Your task to perform on an android device: turn off notifications settings in the gmail app Image 0: 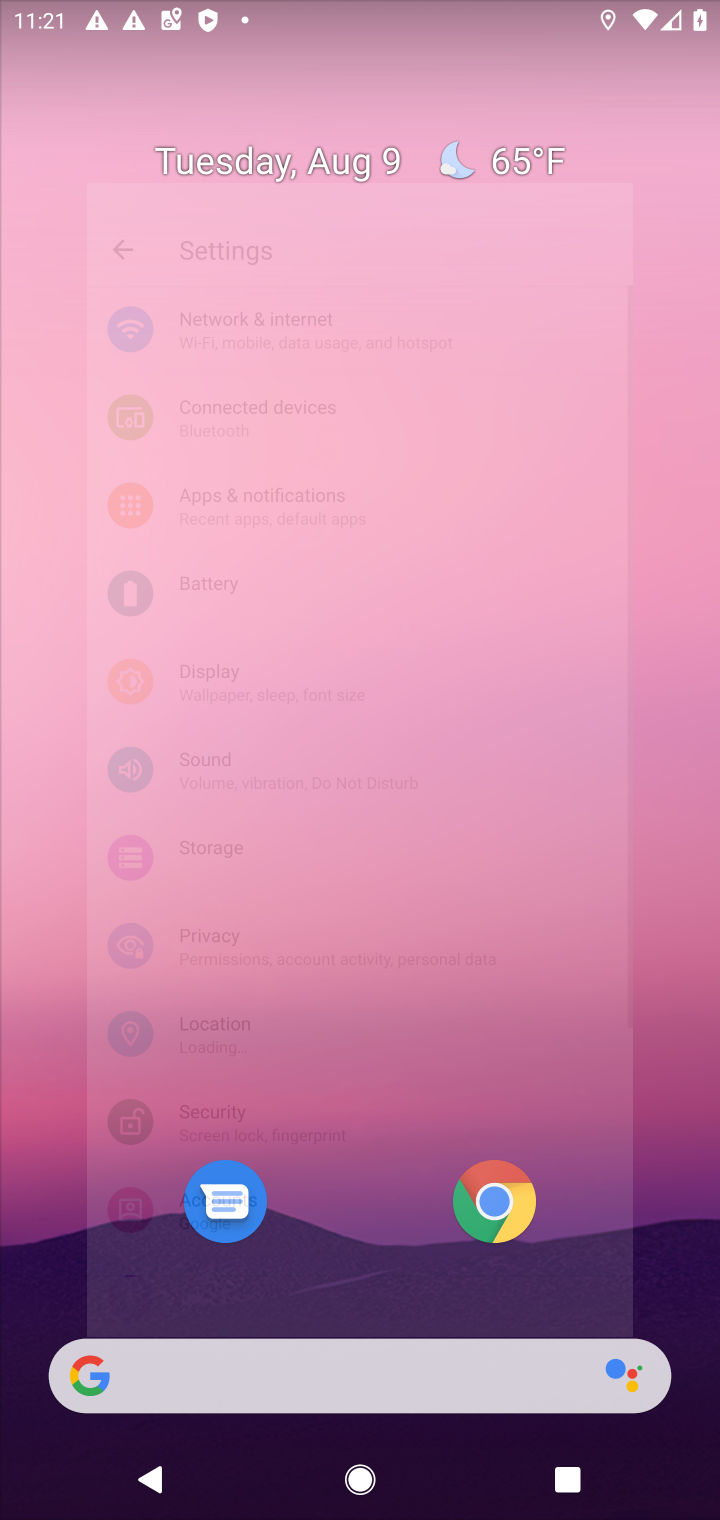
Step 0: press home button
Your task to perform on an android device: turn off notifications settings in the gmail app Image 1: 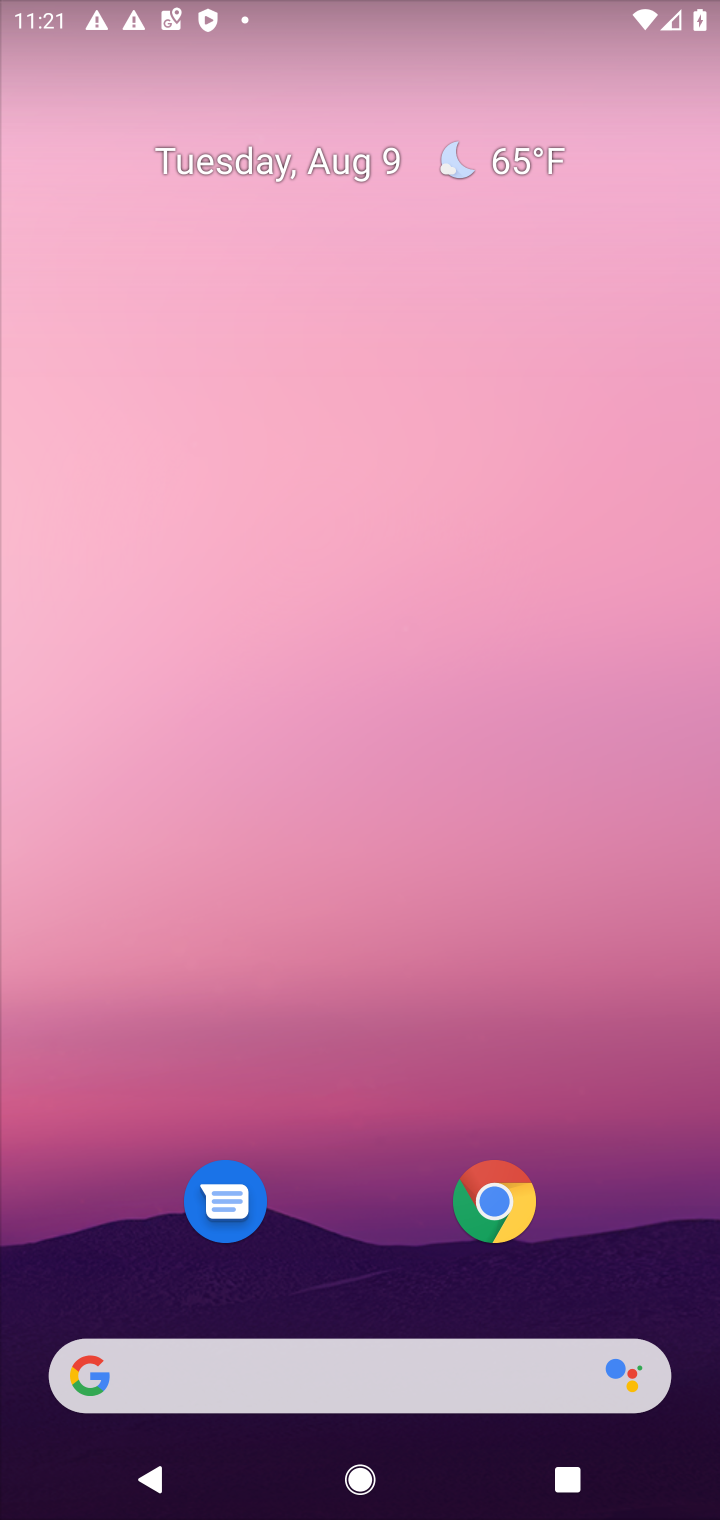
Step 1: drag from (386, 1281) to (373, 172)
Your task to perform on an android device: turn off notifications settings in the gmail app Image 2: 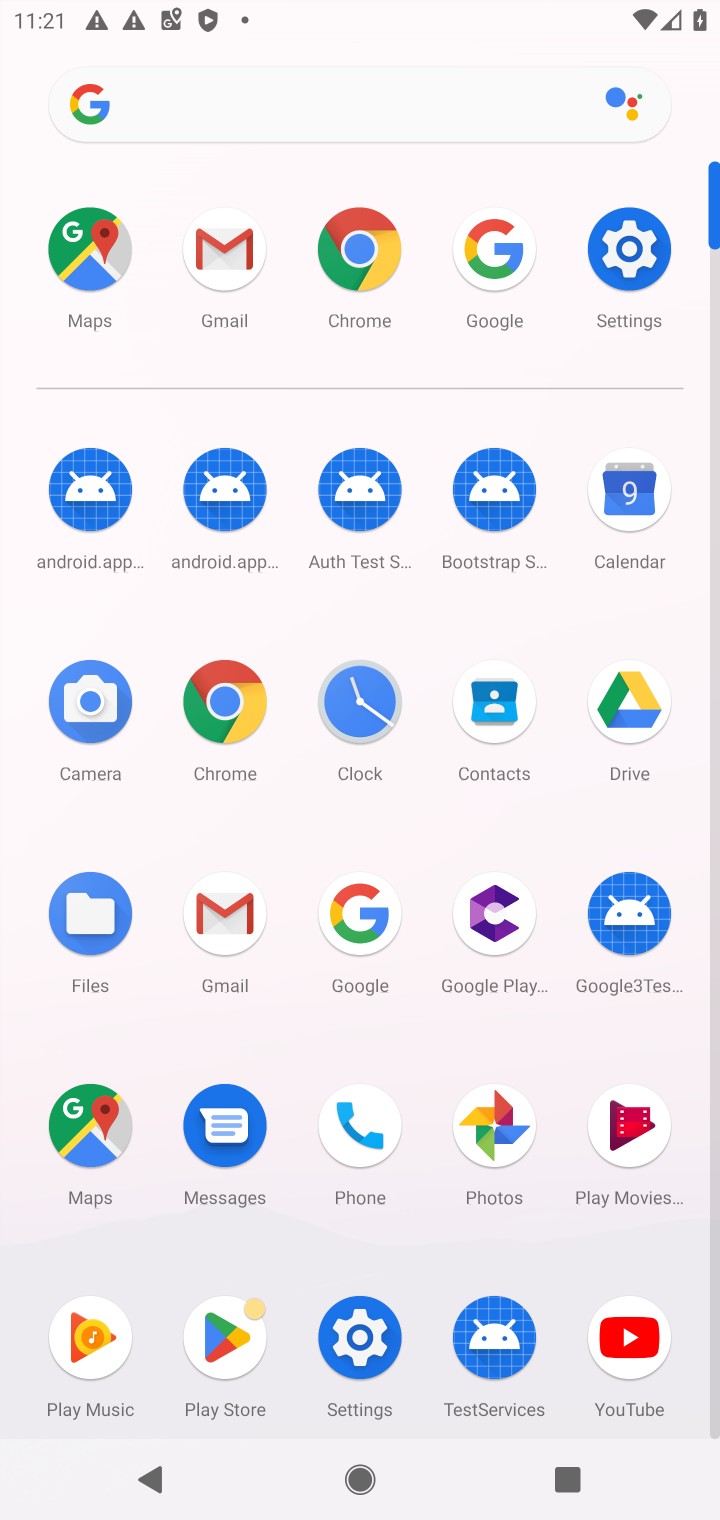
Step 2: click (211, 244)
Your task to perform on an android device: turn off notifications settings in the gmail app Image 3: 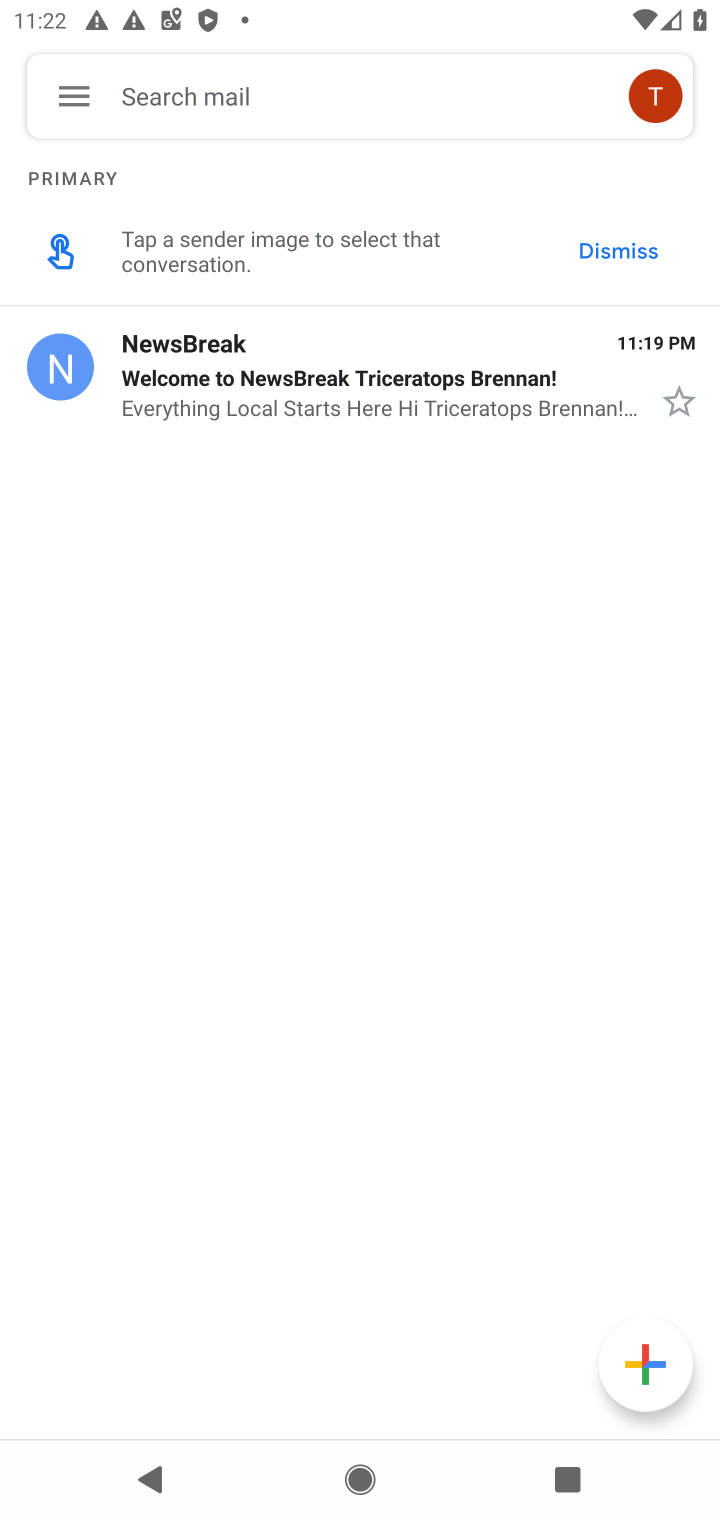
Step 3: click (81, 95)
Your task to perform on an android device: turn off notifications settings in the gmail app Image 4: 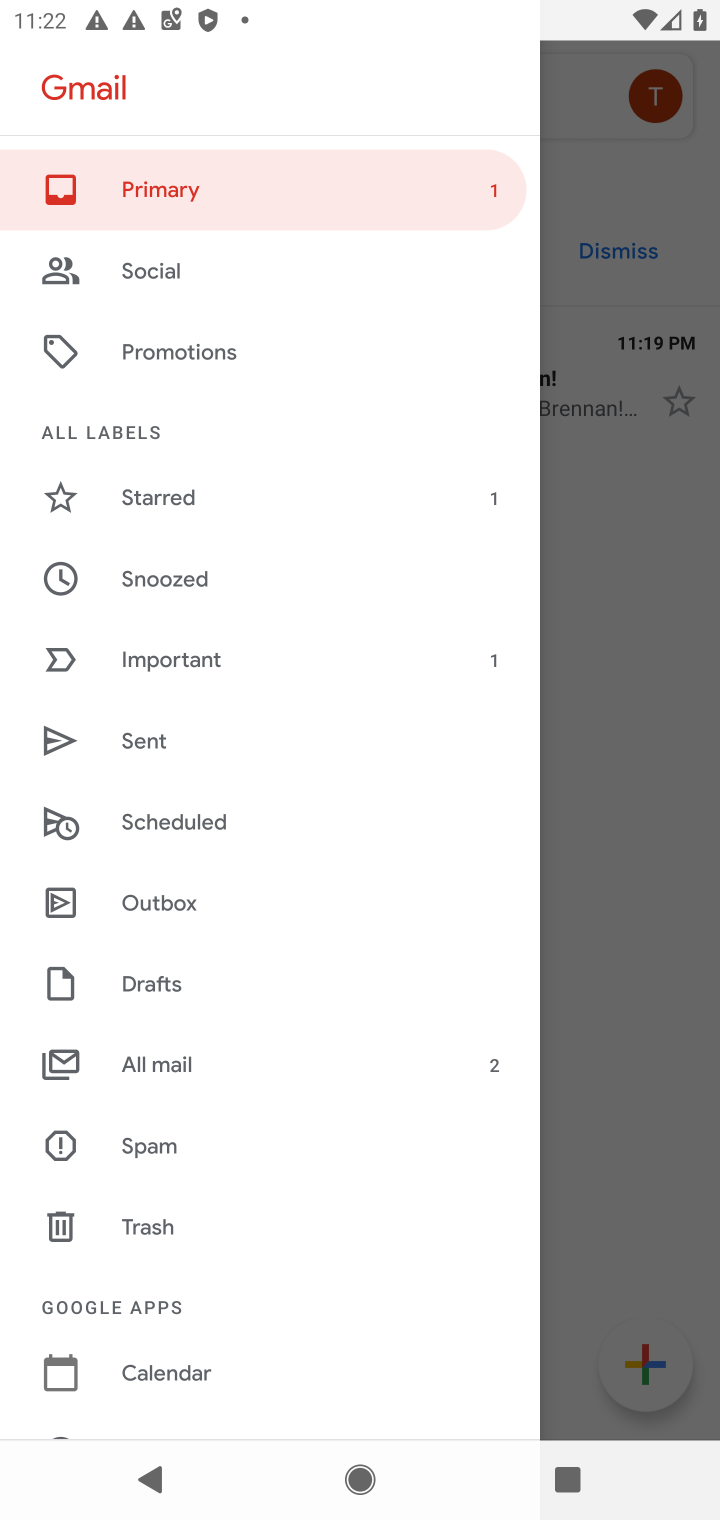
Step 4: drag from (225, 1297) to (245, 553)
Your task to perform on an android device: turn off notifications settings in the gmail app Image 5: 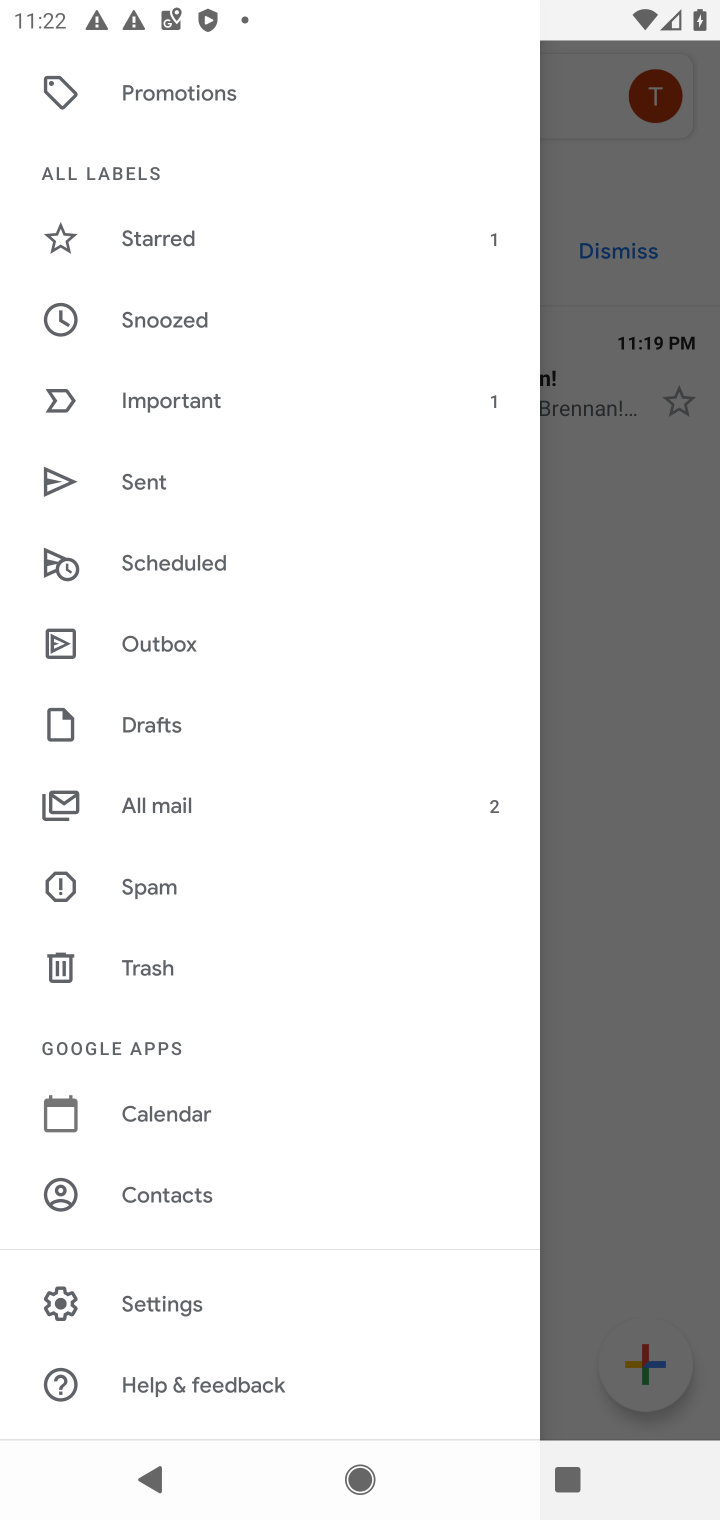
Step 5: click (166, 1299)
Your task to perform on an android device: turn off notifications settings in the gmail app Image 6: 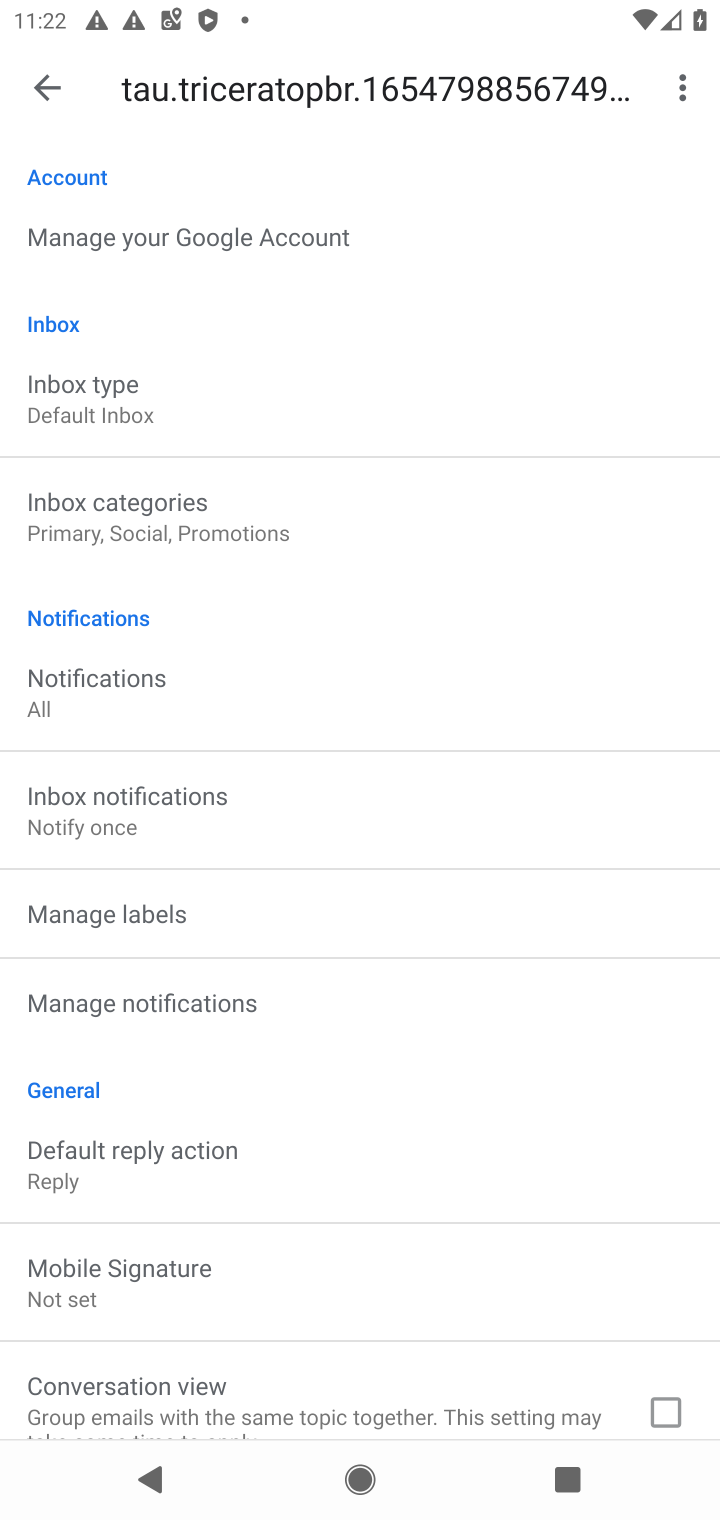
Step 6: click (155, 999)
Your task to perform on an android device: turn off notifications settings in the gmail app Image 7: 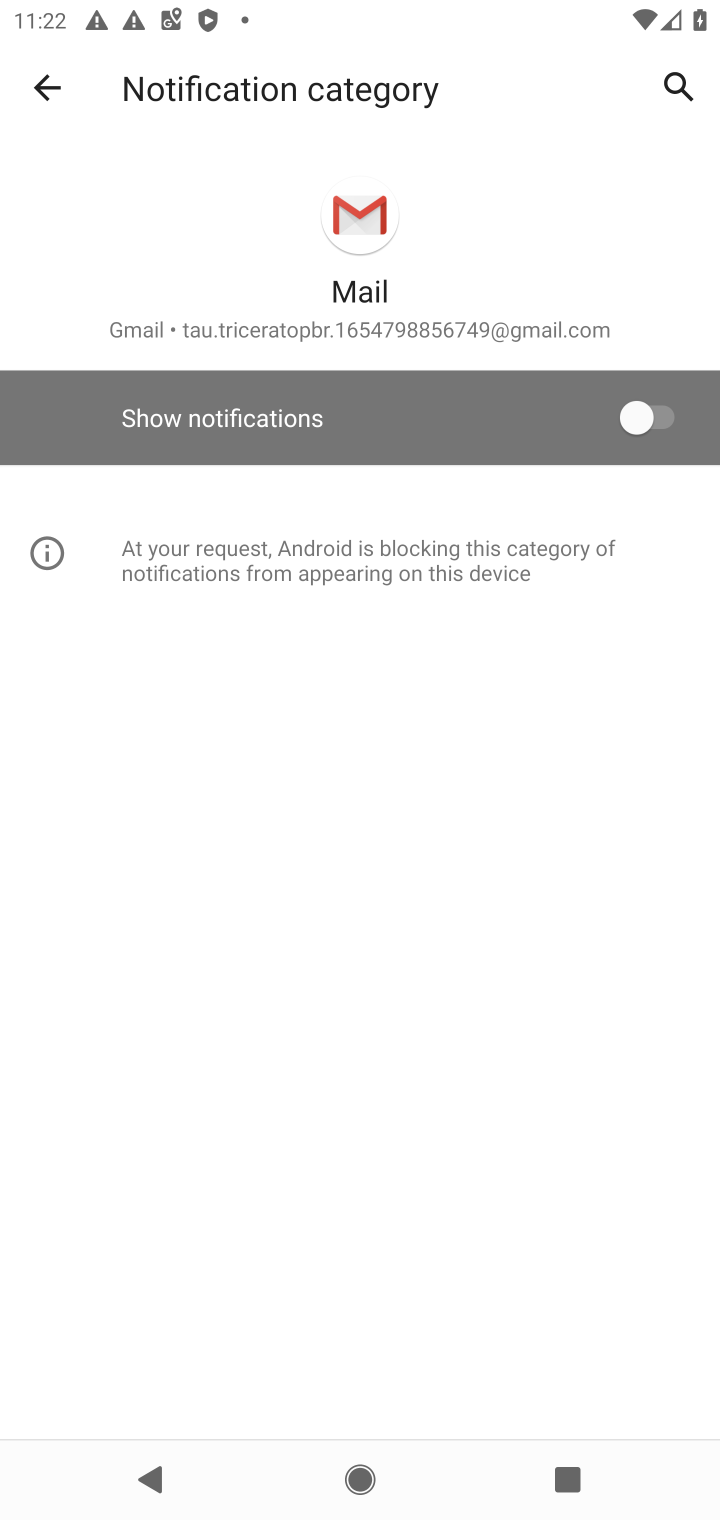
Step 7: task complete